Your task to perform on an android device: Open Chrome and go to the settings page Image 0: 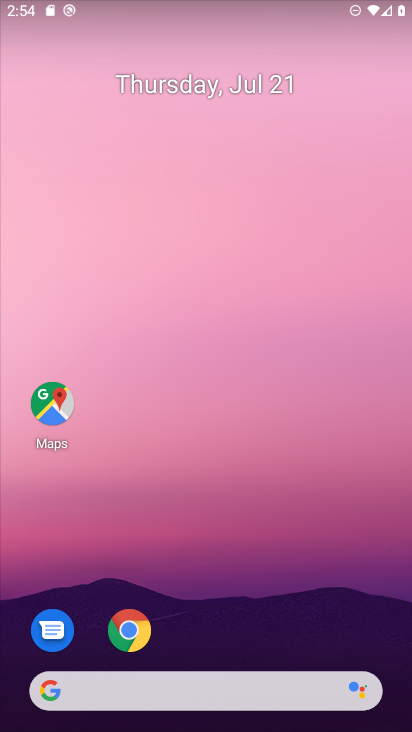
Step 0: click (133, 628)
Your task to perform on an android device: Open Chrome and go to the settings page Image 1: 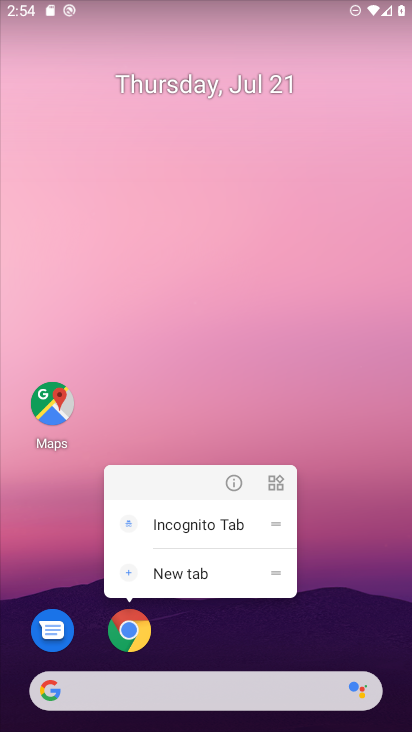
Step 1: click (121, 636)
Your task to perform on an android device: Open Chrome and go to the settings page Image 2: 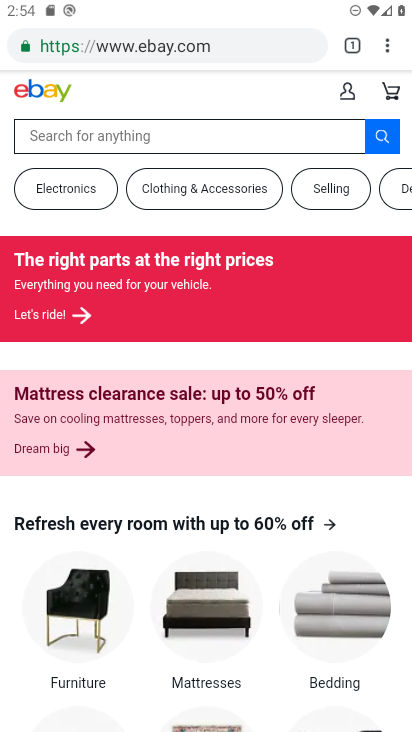
Step 2: task complete